Your task to perform on an android device: Open network settings Image 0: 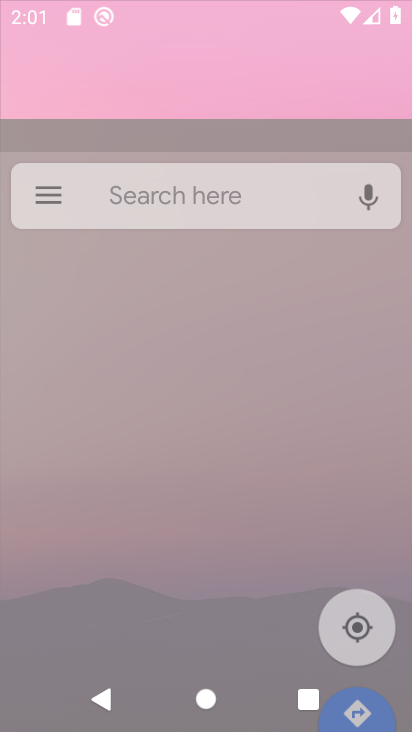
Step 0: drag from (206, 589) to (312, 114)
Your task to perform on an android device: Open network settings Image 1: 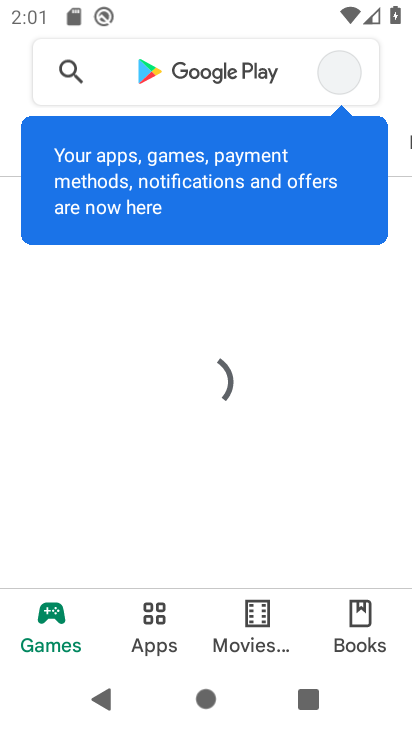
Step 1: press home button
Your task to perform on an android device: Open network settings Image 2: 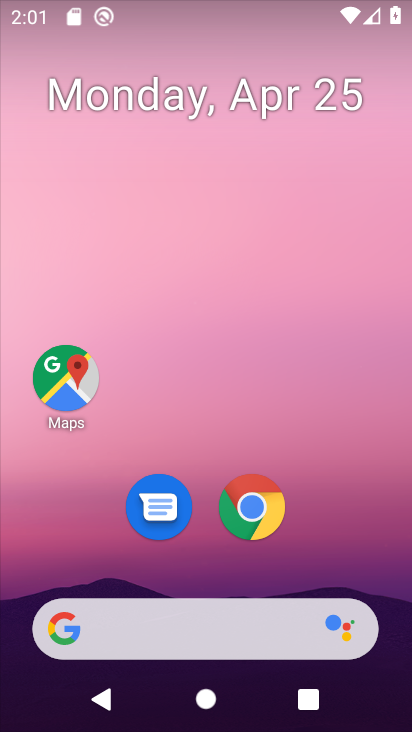
Step 2: drag from (168, 629) to (339, 63)
Your task to perform on an android device: Open network settings Image 3: 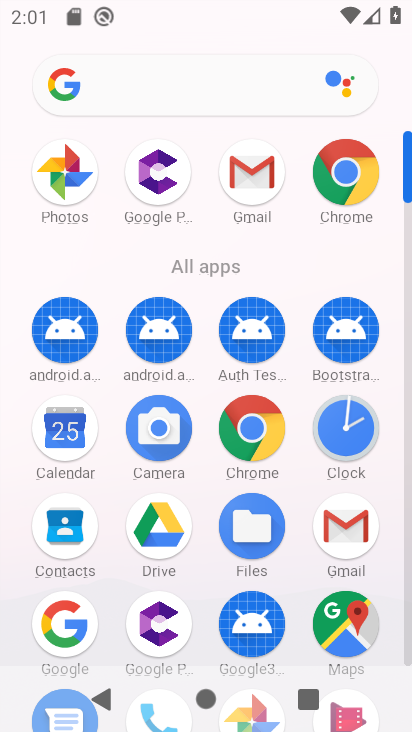
Step 3: drag from (209, 617) to (365, 157)
Your task to perform on an android device: Open network settings Image 4: 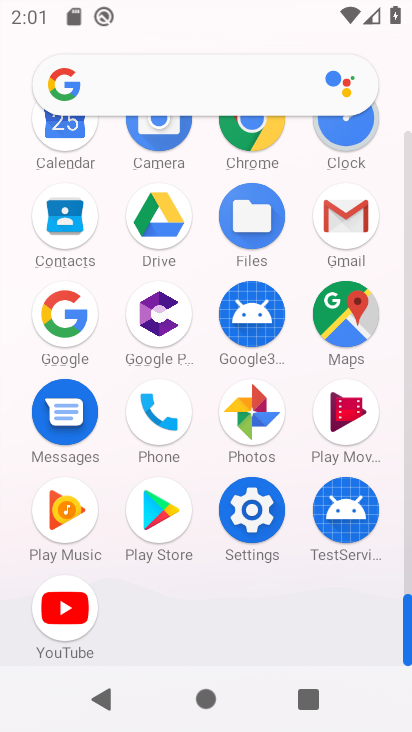
Step 4: click (258, 525)
Your task to perform on an android device: Open network settings Image 5: 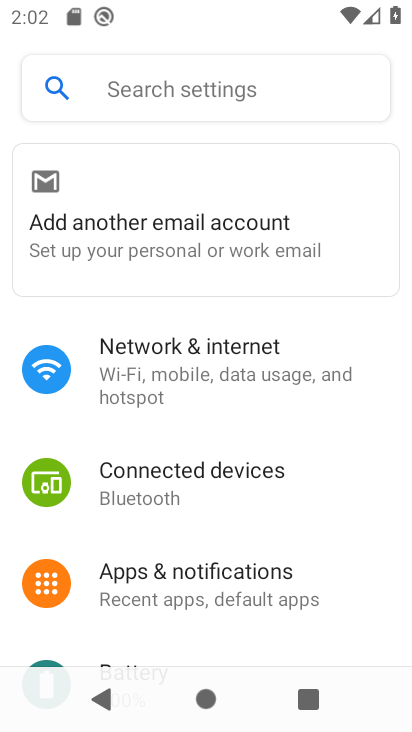
Step 5: task complete